Your task to perform on an android device: Search for Italian restaurants on Maps Image 0: 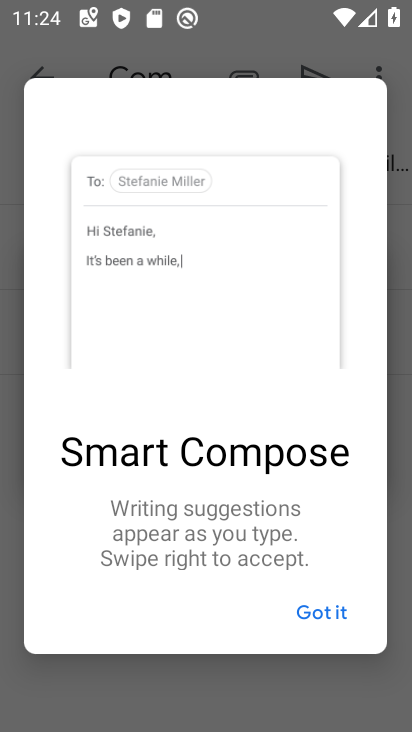
Step 0: press home button
Your task to perform on an android device: Search for Italian restaurants on Maps Image 1: 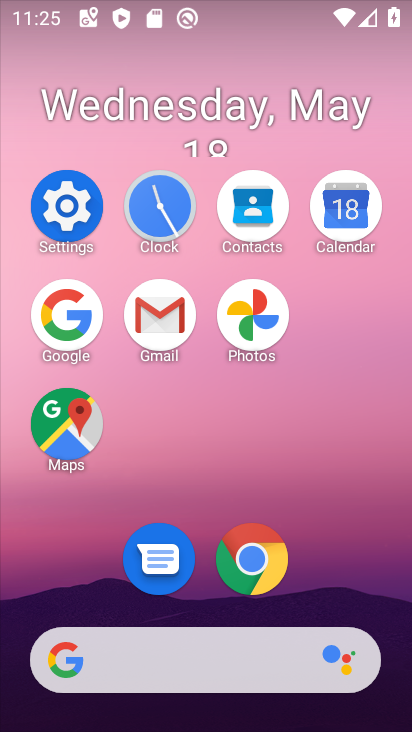
Step 1: click (74, 409)
Your task to perform on an android device: Search for Italian restaurants on Maps Image 2: 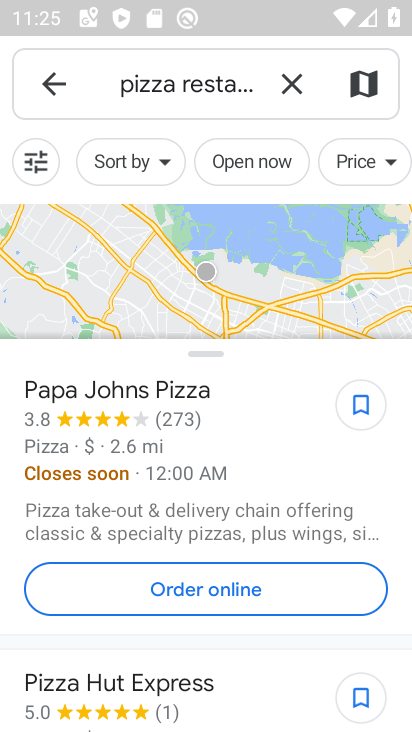
Step 2: click (294, 76)
Your task to perform on an android device: Search for Italian restaurants on Maps Image 3: 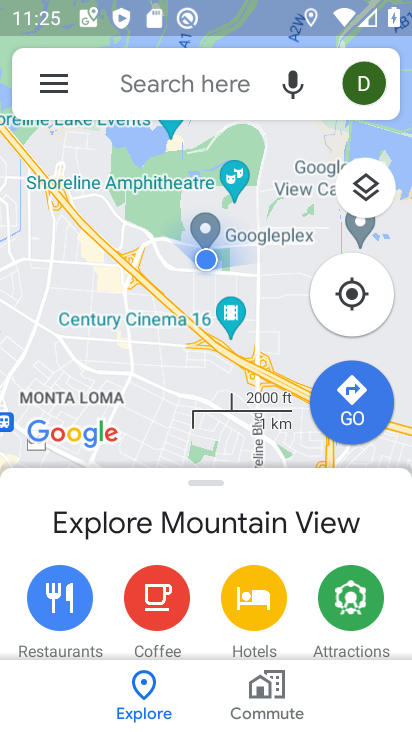
Step 3: click (160, 90)
Your task to perform on an android device: Search for Italian restaurants on Maps Image 4: 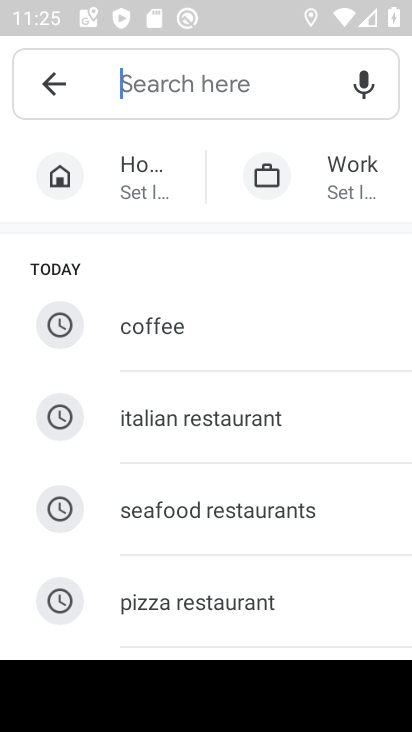
Step 4: click (202, 423)
Your task to perform on an android device: Search for Italian restaurants on Maps Image 5: 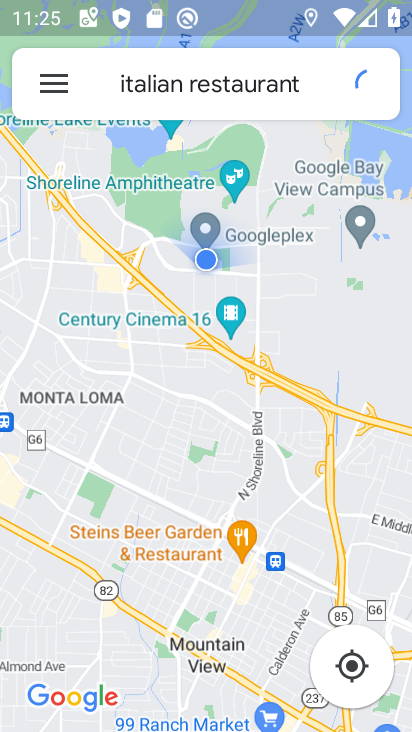
Step 5: task complete